Your task to perform on an android device: Search for sushi restaurants on Maps Image 0: 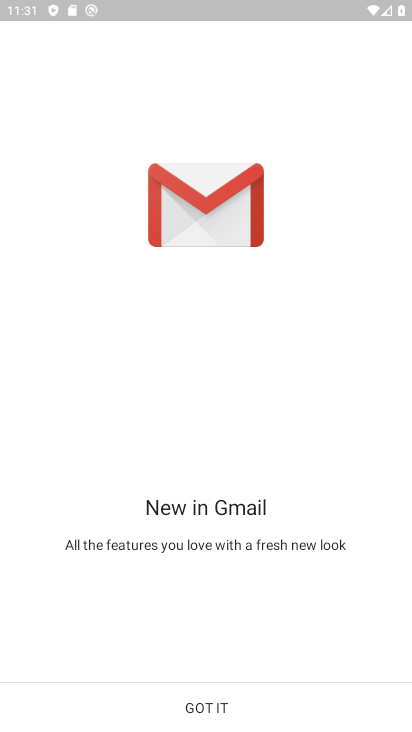
Step 0: press home button
Your task to perform on an android device: Search for sushi restaurants on Maps Image 1: 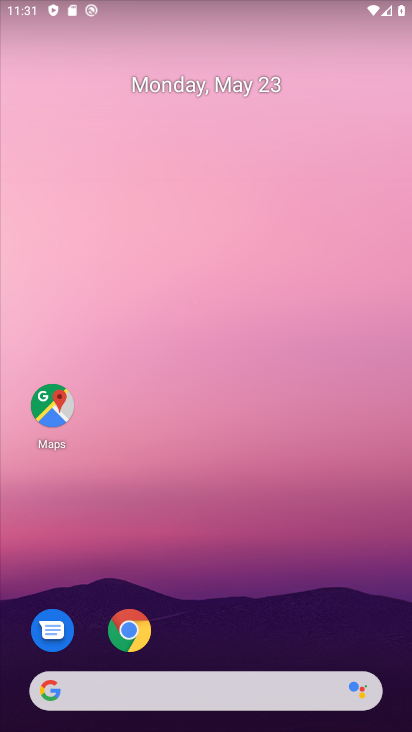
Step 1: click (66, 401)
Your task to perform on an android device: Search for sushi restaurants on Maps Image 2: 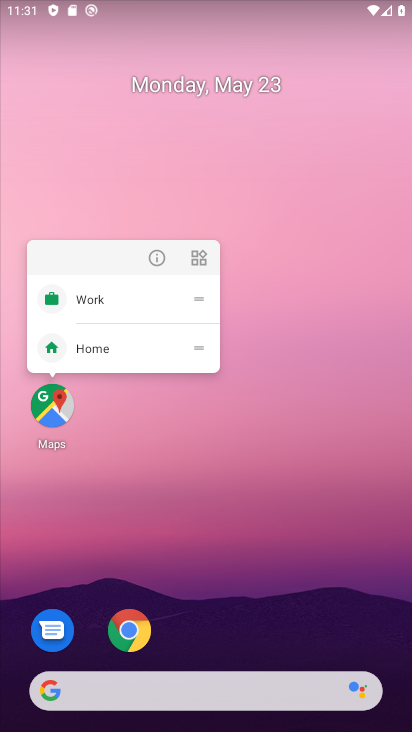
Step 2: click (50, 402)
Your task to perform on an android device: Search for sushi restaurants on Maps Image 3: 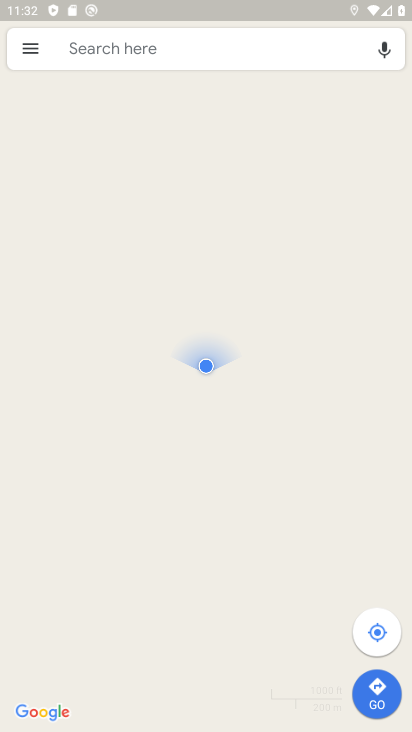
Step 3: click (233, 54)
Your task to perform on an android device: Search for sushi restaurants on Maps Image 4: 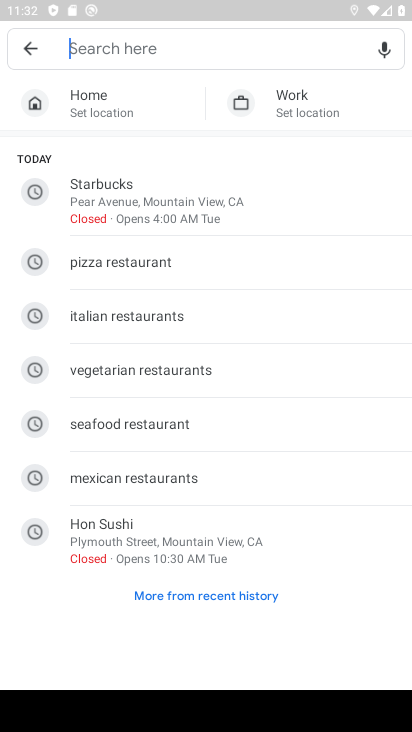
Step 4: type "sushi restaurants"
Your task to perform on an android device: Search for sushi restaurants on Maps Image 5: 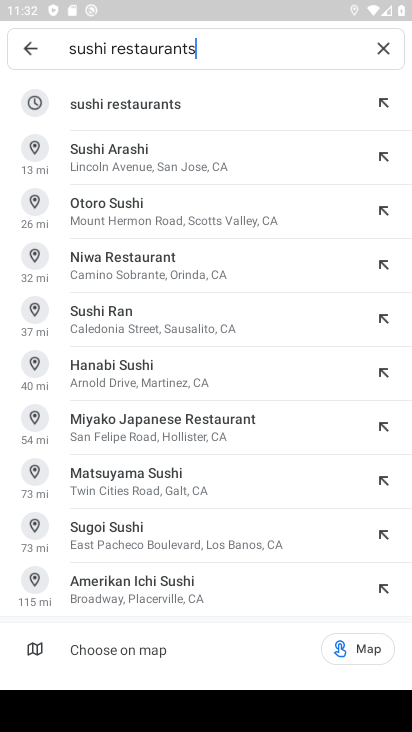
Step 5: click (208, 101)
Your task to perform on an android device: Search for sushi restaurants on Maps Image 6: 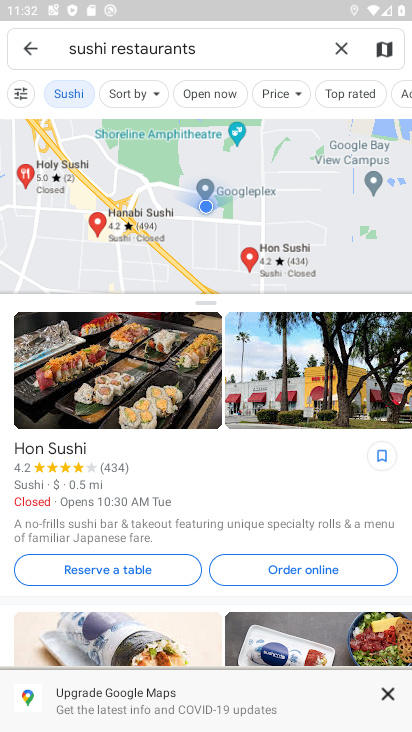
Step 6: task complete